Your task to perform on an android device: toggle sleep mode Image 0: 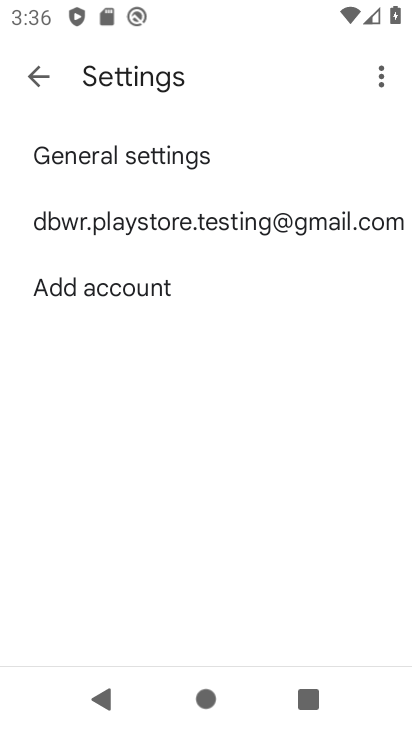
Step 0: press home button
Your task to perform on an android device: toggle sleep mode Image 1: 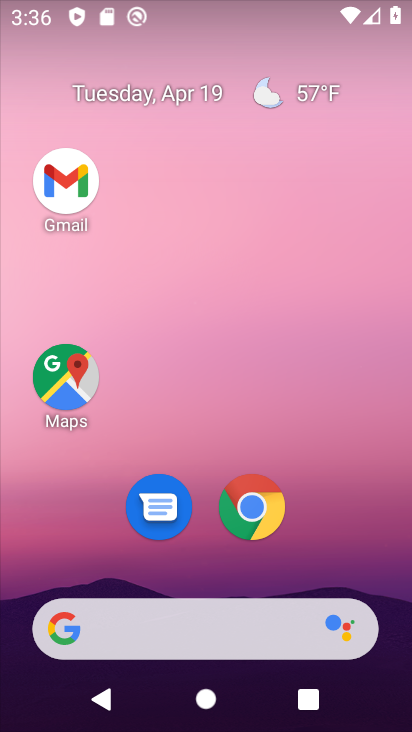
Step 1: drag from (214, 590) to (297, 122)
Your task to perform on an android device: toggle sleep mode Image 2: 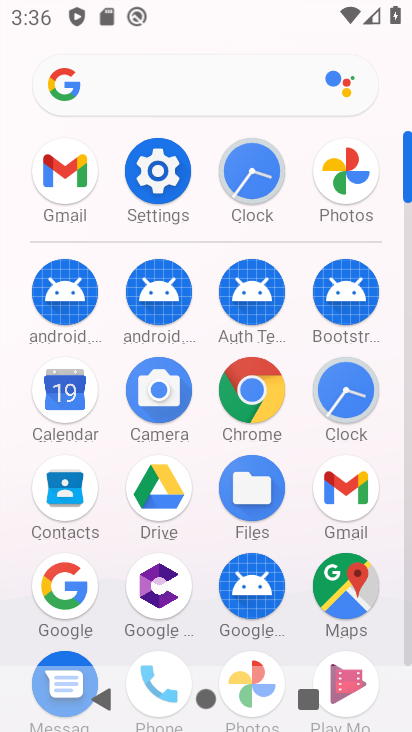
Step 2: click (139, 168)
Your task to perform on an android device: toggle sleep mode Image 3: 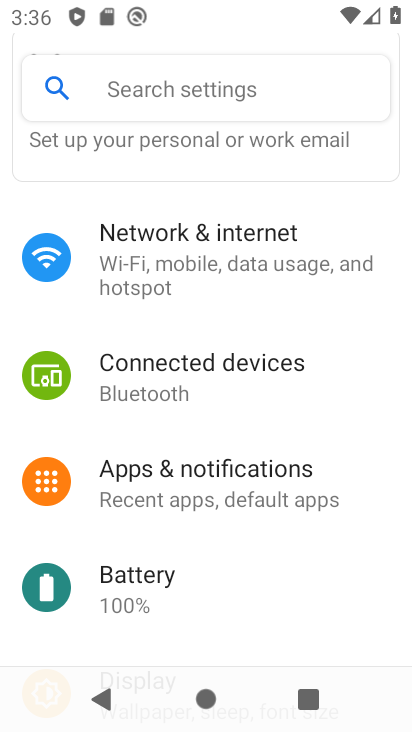
Step 3: drag from (254, 516) to (312, 155)
Your task to perform on an android device: toggle sleep mode Image 4: 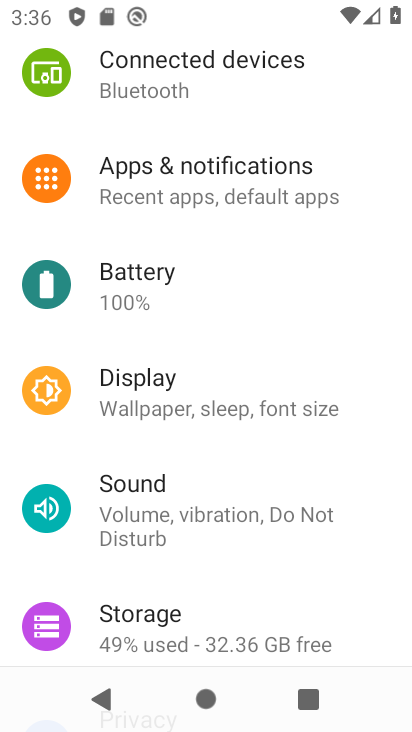
Step 4: click (214, 393)
Your task to perform on an android device: toggle sleep mode Image 5: 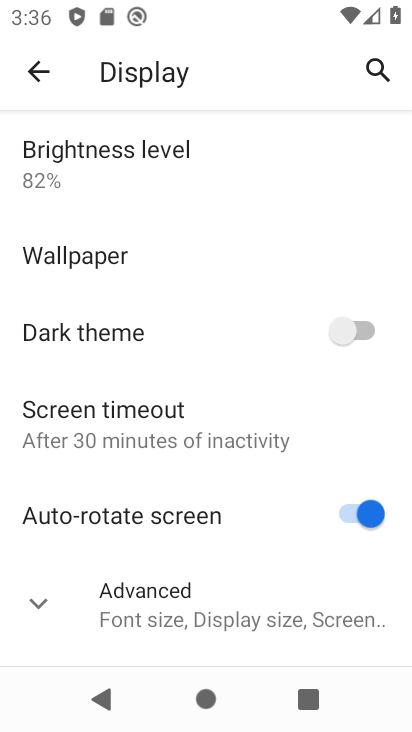
Step 5: click (214, 425)
Your task to perform on an android device: toggle sleep mode Image 6: 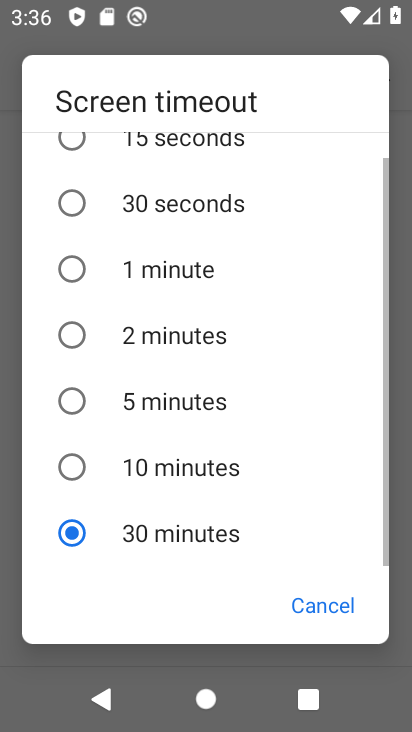
Step 6: click (196, 400)
Your task to perform on an android device: toggle sleep mode Image 7: 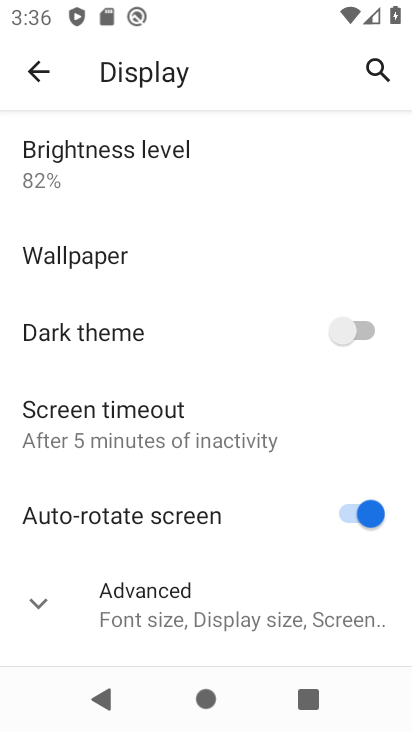
Step 7: task complete